Your task to perform on an android device: Open the phone app and click the voicemail tab. Image 0: 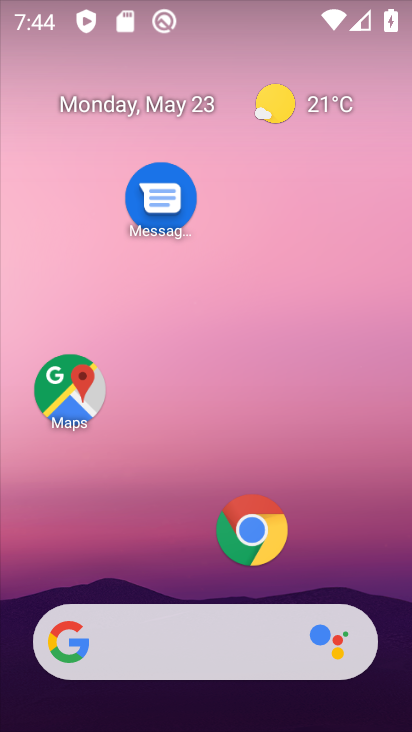
Step 0: drag from (159, 591) to (170, 69)
Your task to perform on an android device: Open the phone app and click the voicemail tab. Image 1: 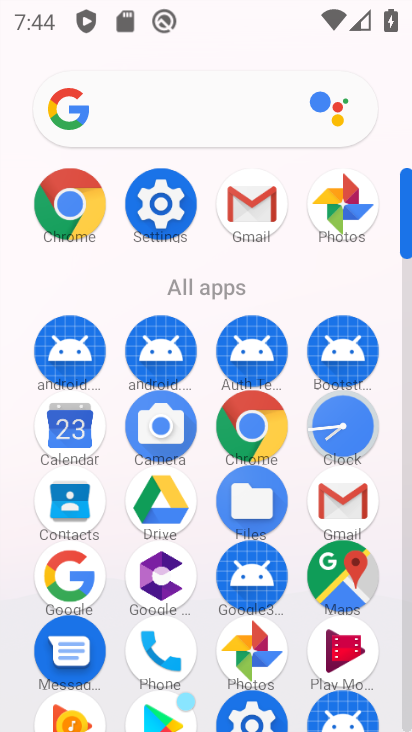
Step 1: click (173, 645)
Your task to perform on an android device: Open the phone app and click the voicemail tab. Image 2: 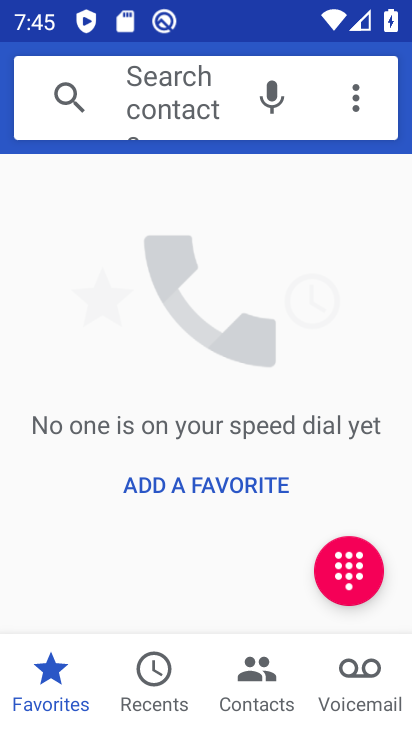
Step 2: click (373, 686)
Your task to perform on an android device: Open the phone app and click the voicemail tab. Image 3: 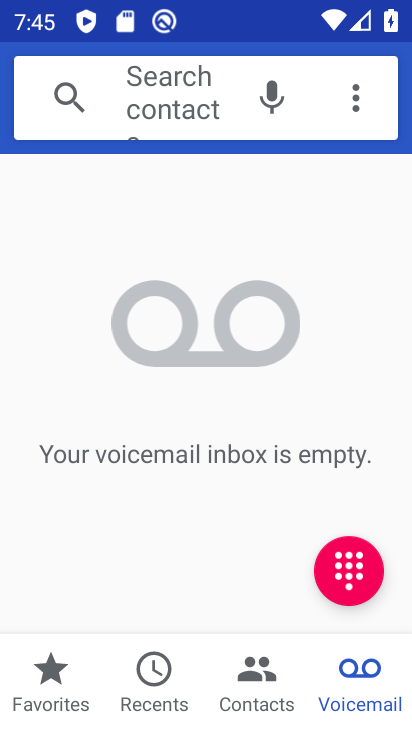
Step 3: task complete